Your task to perform on an android device: Is it going to rain today? Image 0: 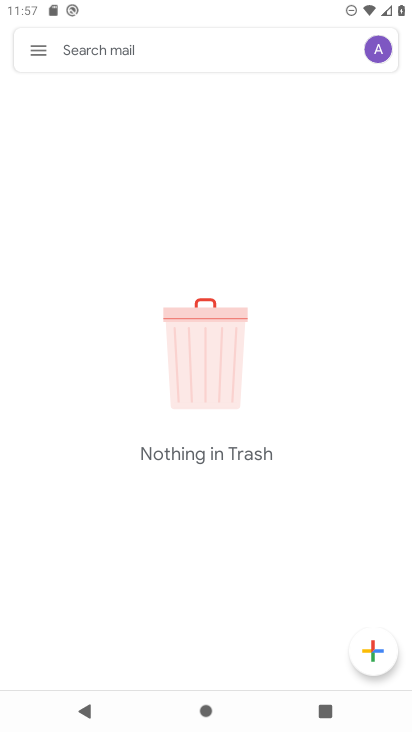
Step 0: press home button
Your task to perform on an android device: Is it going to rain today? Image 1: 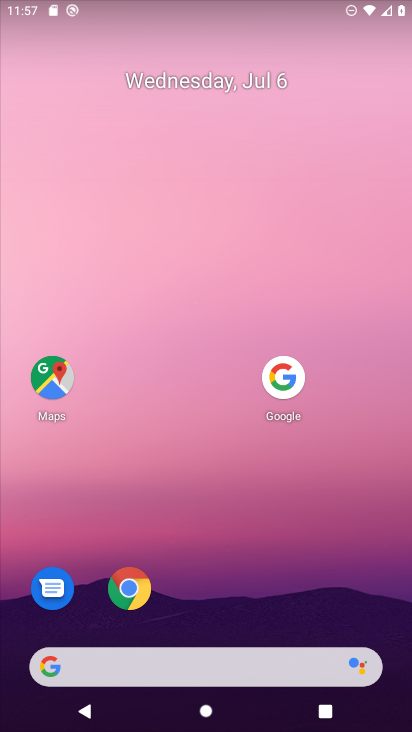
Step 1: drag from (189, 669) to (345, 21)
Your task to perform on an android device: Is it going to rain today? Image 2: 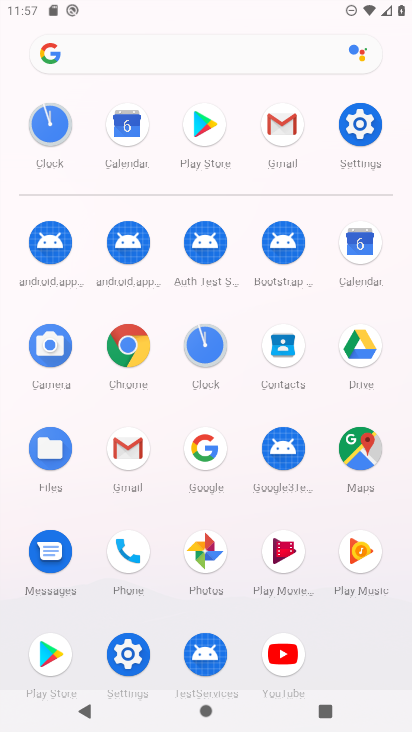
Step 2: click (206, 446)
Your task to perform on an android device: Is it going to rain today? Image 3: 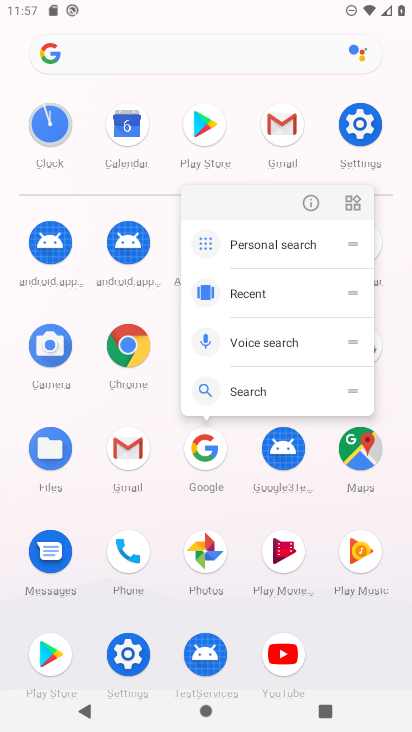
Step 3: click (206, 446)
Your task to perform on an android device: Is it going to rain today? Image 4: 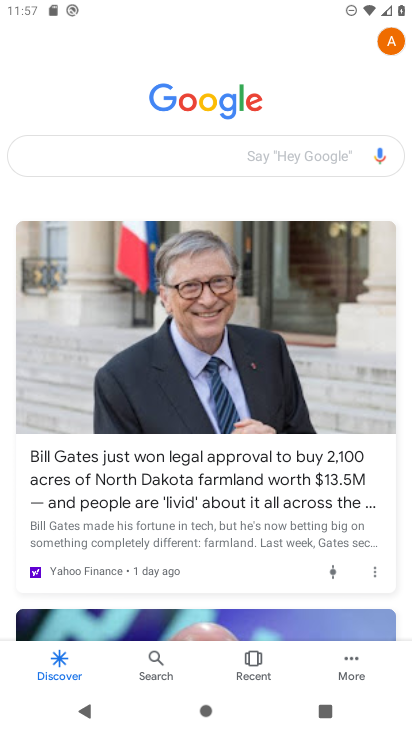
Step 4: click (159, 663)
Your task to perform on an android device: Is it going to rain today? Image 5: 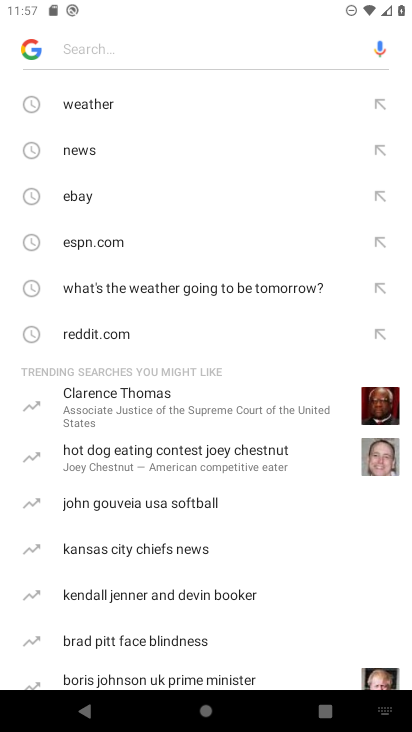
Step 5: type "Is it going to rain today"
Your task to perform on an android device: Is it going to rain today? Image 6: 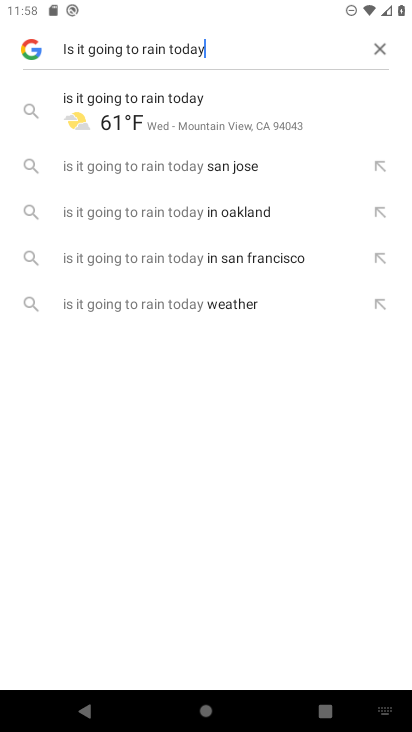
Step 6: click (185, 107)
Your task to perform on an android device: Is it going to rain today? Image 7: 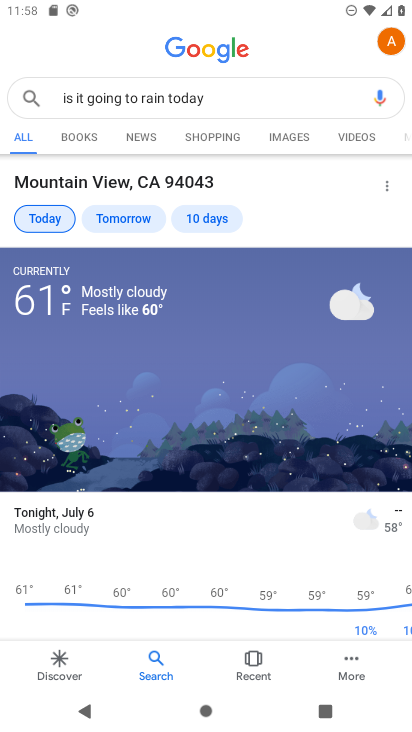
Step 7: task complete